Your task to perform on an android device: Open wifi settings Image 0: 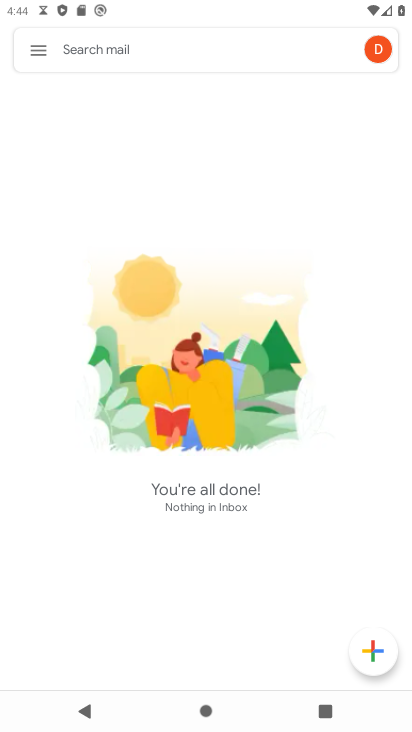
Step 0: press back button
Your task to perform on an android device: Open wifi settings Image 1: 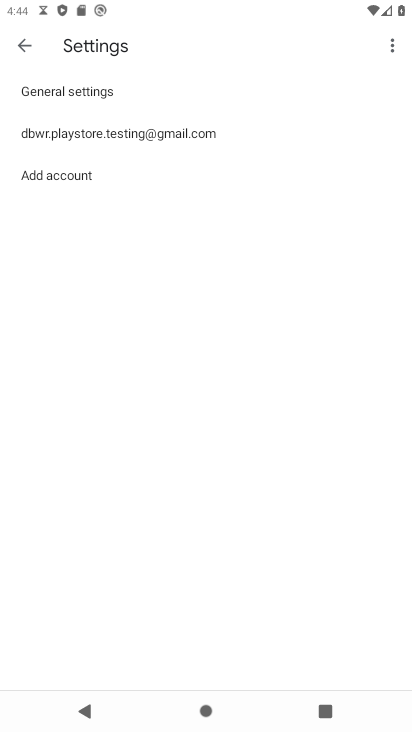
Step 1: press back button
Your task to perform on an android device: Open wifi settings Image 2: 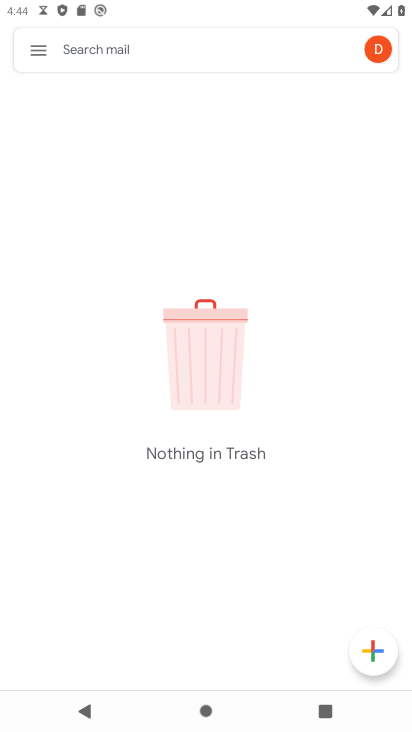
Step 2: press back button
Your task to perform on an android device: Open wifi settings Image 3: 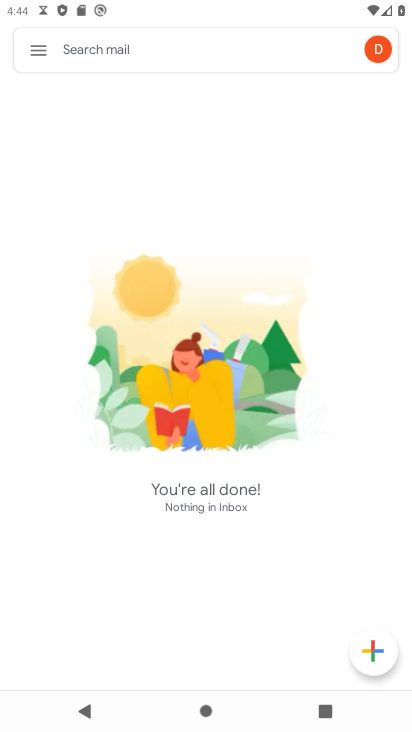
Step 3: press back button
Your task to perform on an android device: Open wifi settings Image 4: 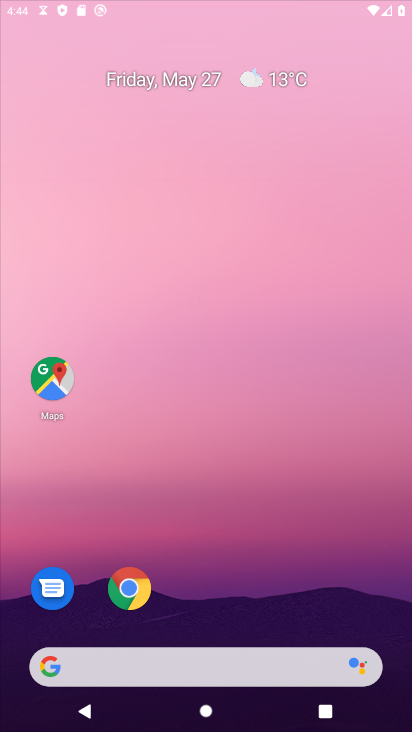
Step 4: press back button
Your task to perform on an android device: Open wifi settings Image 5: 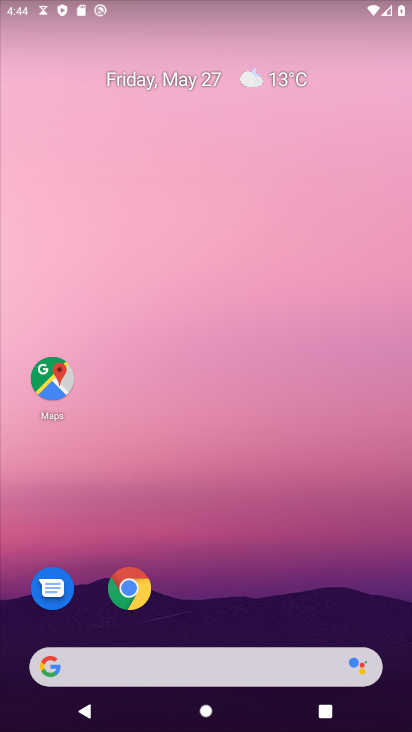
Step 5: click (56, 1)
Your task to perform on an android device: Open wifi settings Image 6: 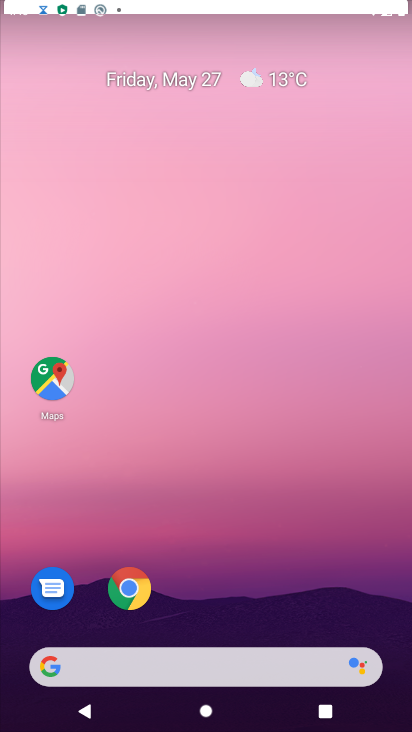
Step 6: drag from (50, 15) to (77, 435)
Your task to perform on an android device: Open wifi settings Image 7: 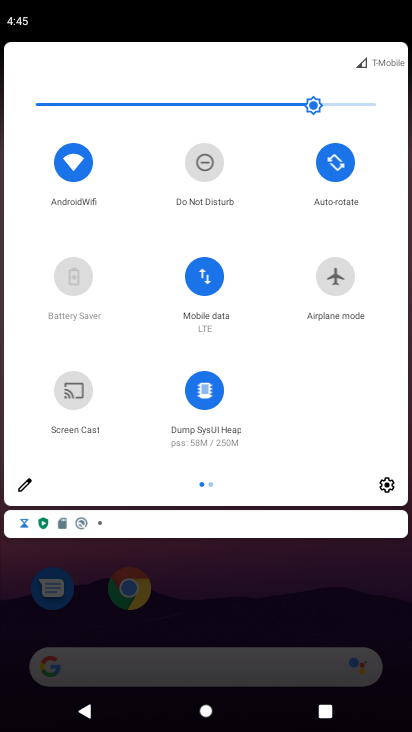
Step 7: click (57, 163)
Your task to perform on an android device: Open wifi settings Image 8: 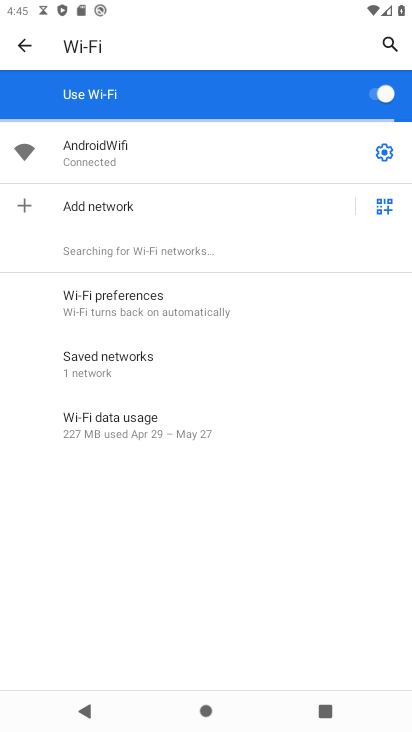
Step 8: task complete